Your task to perform on an android device: Go to Google Image 0: 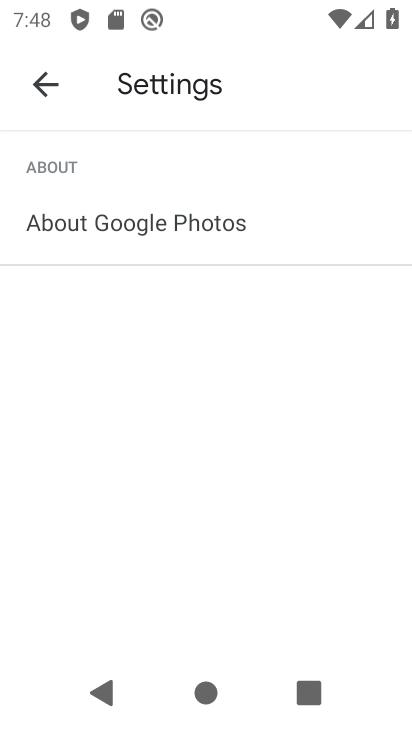
Step 0: press home button
Your task to perform on an android device: Go to Google Image 1: 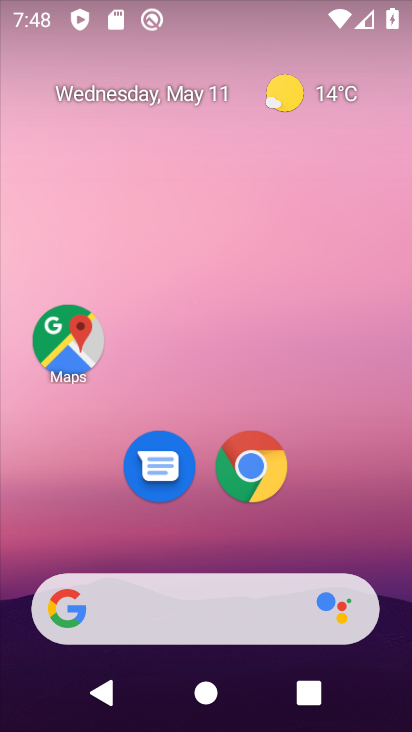
Step 1: drag from (333, 514) to (317, 46)
Your task to perform on an android device: Go to Google Image 2: 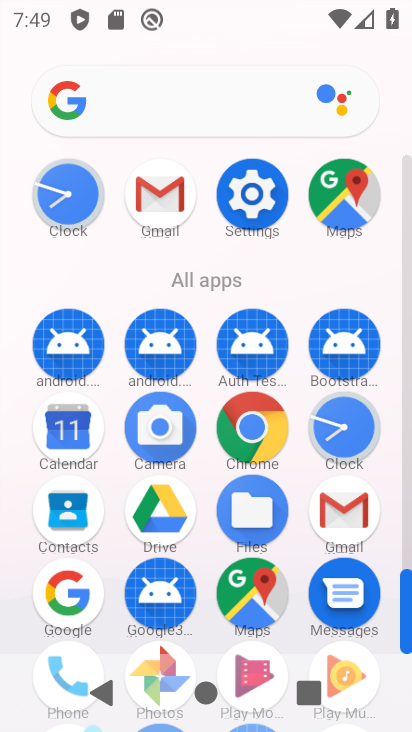
Step 2: click (73, 600)
Your task to perform on an android device: Go to Google Image 3: 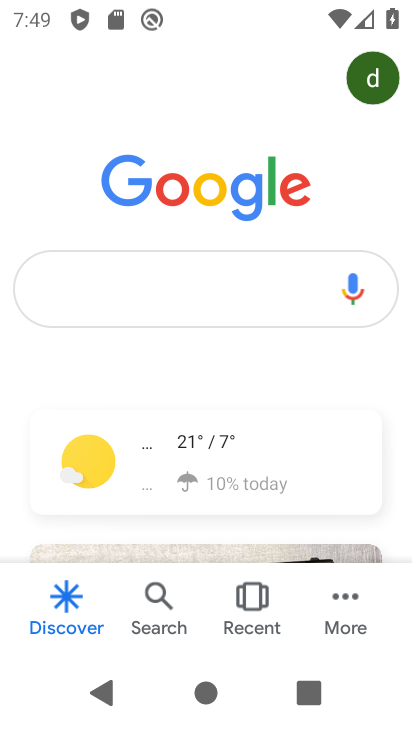
Step 3: task complete